Your task to perform on an android device: Open the Play Movies app and select the watchlist tab. Image 0: 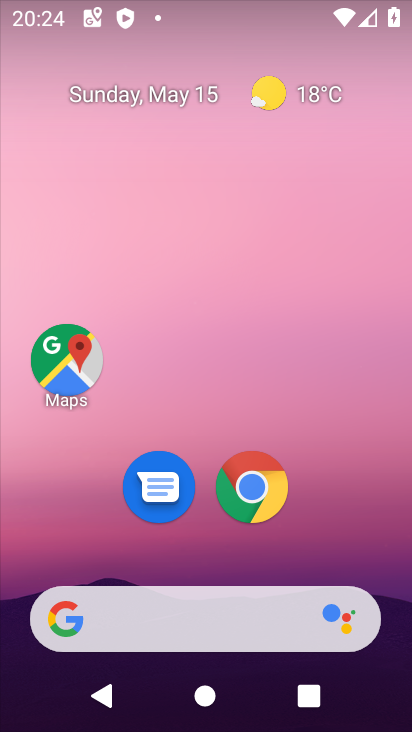
Step 0: click (334, 314)
Your task to perform on an android device: Open the Play Movies app and select the watchlist tab. Image 1: 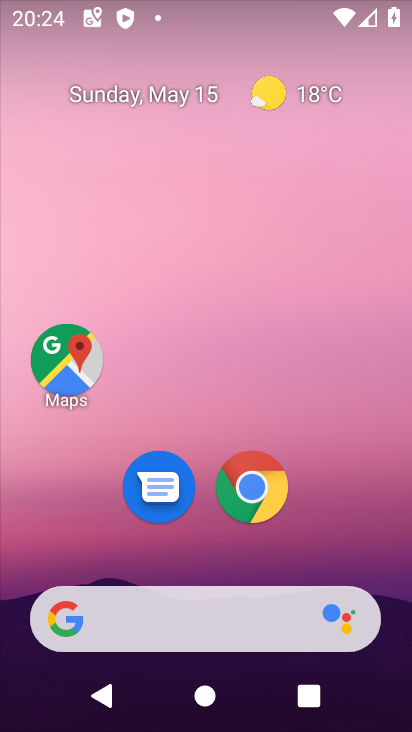
Step 1: click (398, 310)
Your task to perform on an android device: Open the Play Movies app and select the watchlist tab. Image 2: 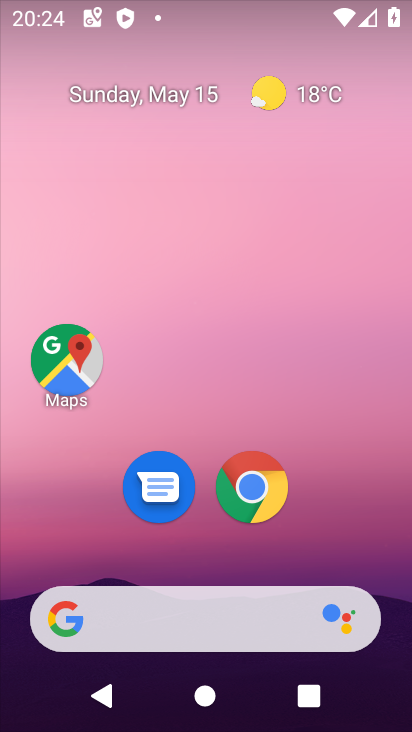
Step 2: drag from (401, 685) to (375, 268)
Your task to perform on an android device: Open the Play Movies app and select the watchlist tab. Image 3: 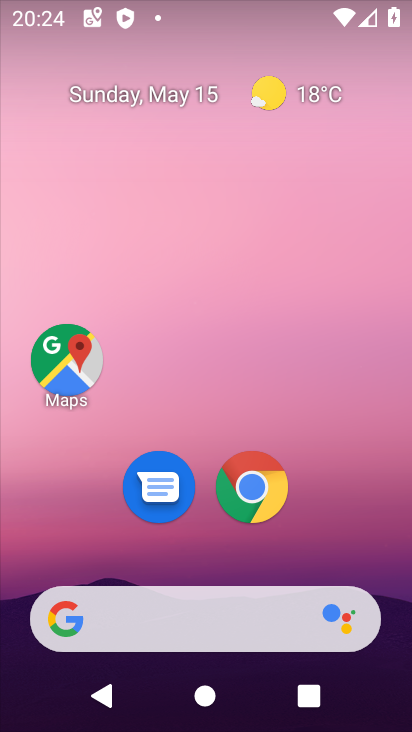
Step 3: drag from (394, 497) to (368, 282)
Your task to perform on an android device: Open the Play Movies app and select the watchlist tab. Image 4: 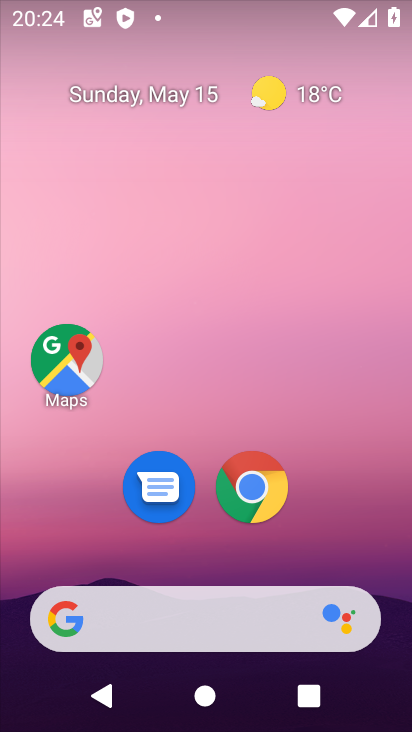
Step 4: drag from (405, 531) to (392, 213)
Your task to perform on an android device: Open the Play Movies app and select the watchlist tab. Image 5: 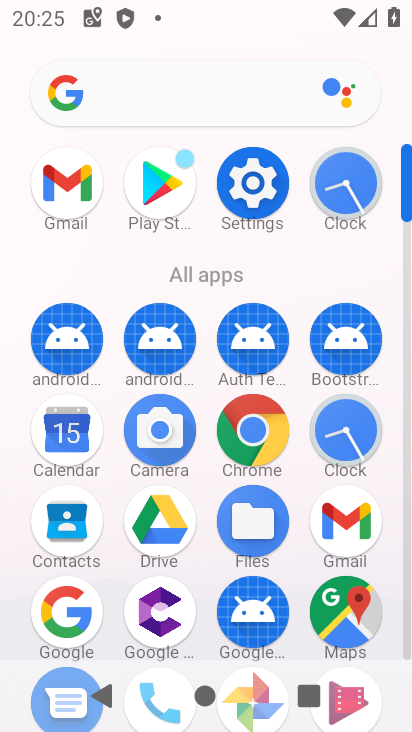
Step 5: drag from (407, 156) to (397, 76)
Your task to perform on an android device: Open the Play Movies app and select the watchlist tab. Image 6: 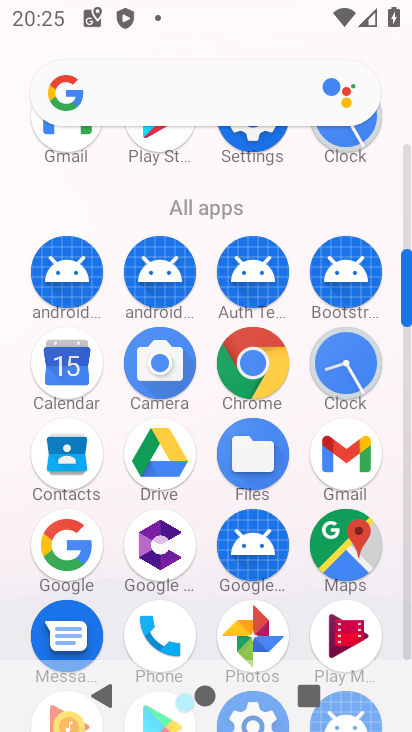
Step 6: click (349, 621)
Your task to perform on an android device: Open the Play Movies app and select the watchlist tab. Image 7: 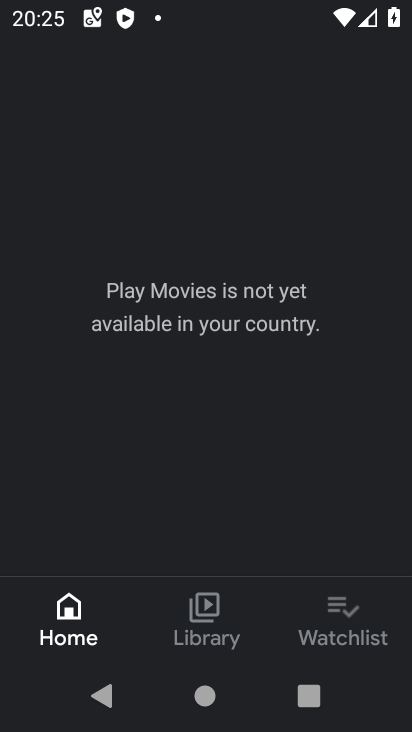
Step 7: click (323, 624)
Your task to perform on an android device: Open the Play Movies app and select the watchlist tab. Image 8: 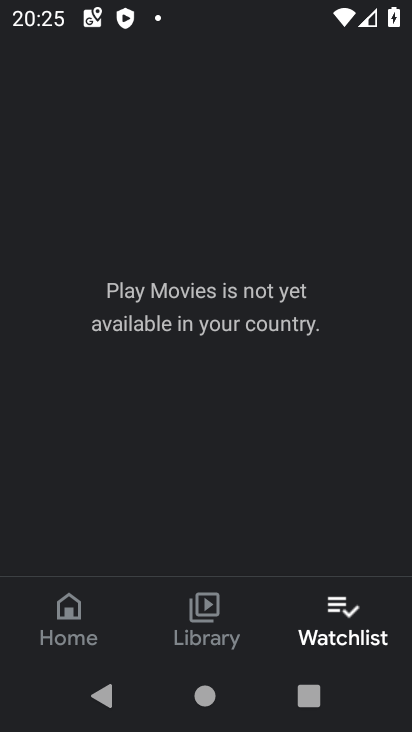
Step 8: task complete